Your task to perform on an android device: View the shopping cart on walmart. Search for bose soundlink mini on walmart, select the first entry, add it to the cart, then select checkout. Image 0: 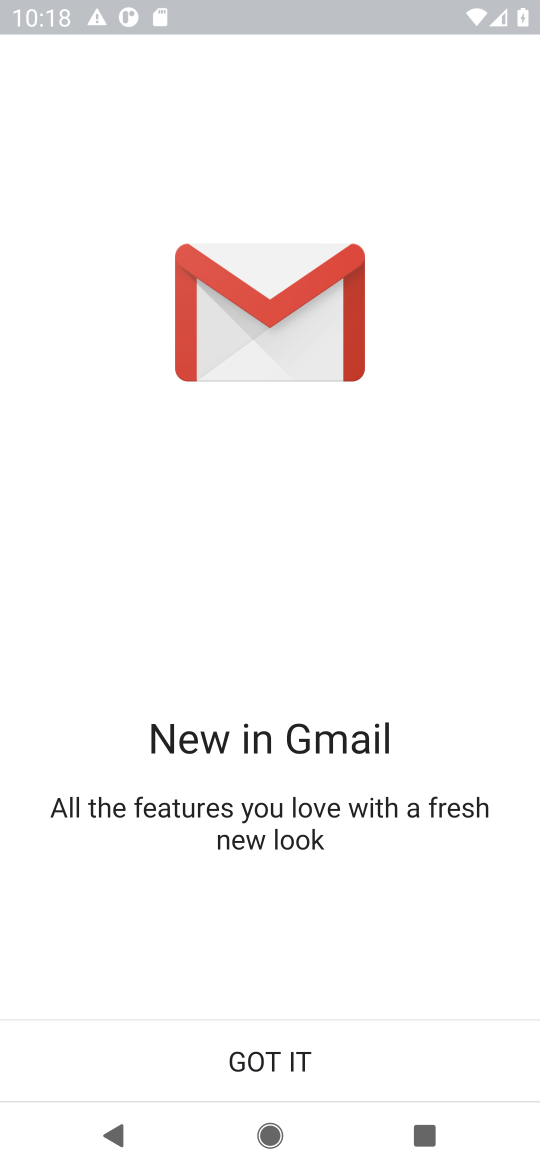
Step 0: press home button
Your task to perform on an android device: View the shopping cart on walmart. Search for bose soundlink mini on walmart, select the first entry, add it to the cart, then select checkout. Image 1: 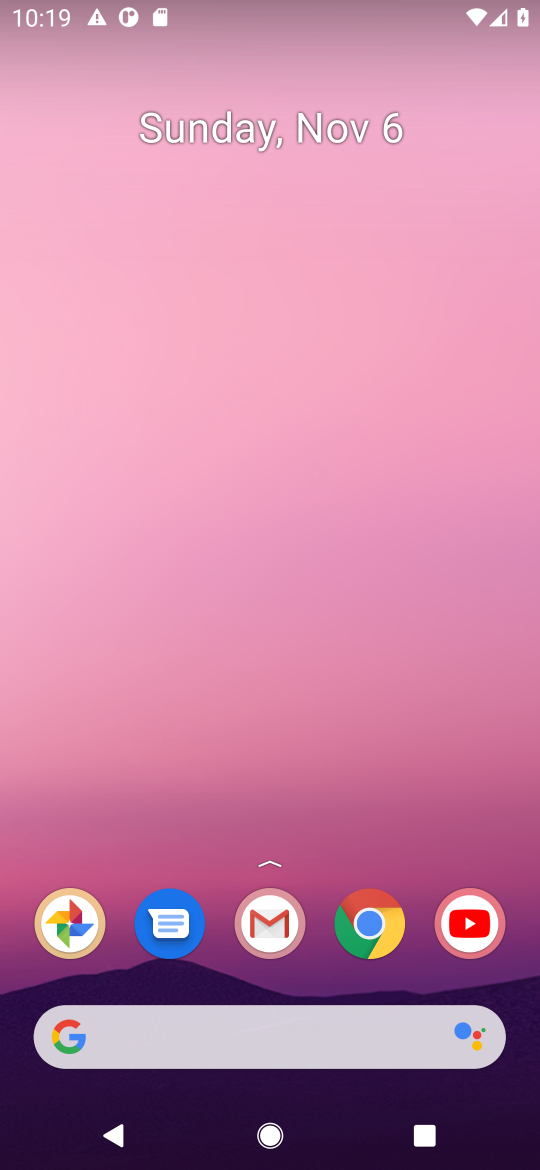
Step 1: click (368, 922)
Your task to perform on an android device: View the shopping cart on walmart. Search for bose soundlink mini on walmart, select the first entry, add it to the cart, then select checkout. Image 2: 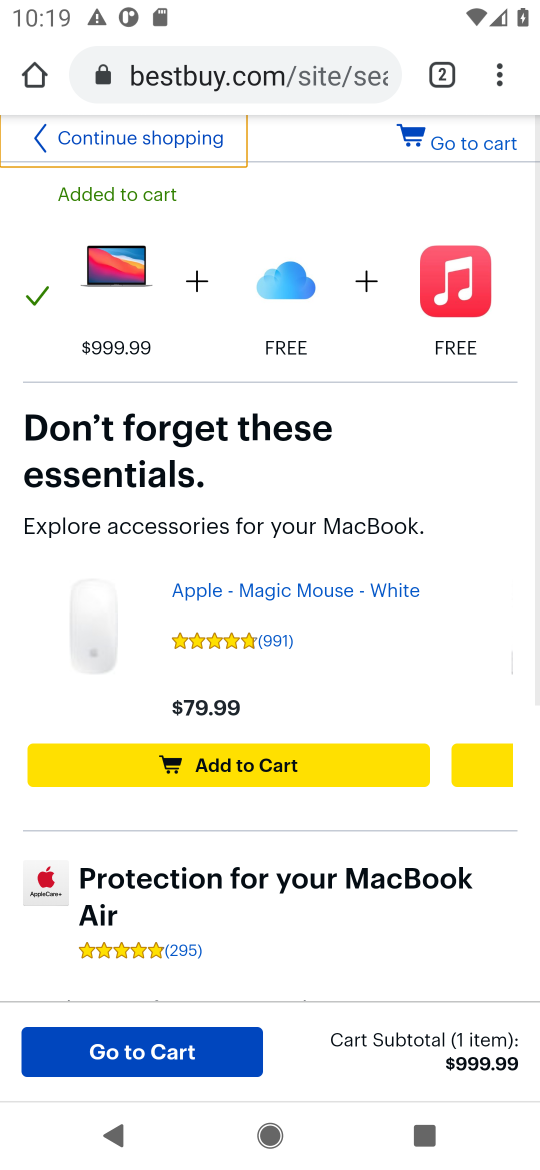
Step 2: click (243, 79)
Your task to perform on an android device: View the shopping cart on walmart. Search for bose soundlink mini on walmart, select the first entry, add it to the cart, then select checkout. Image 3: 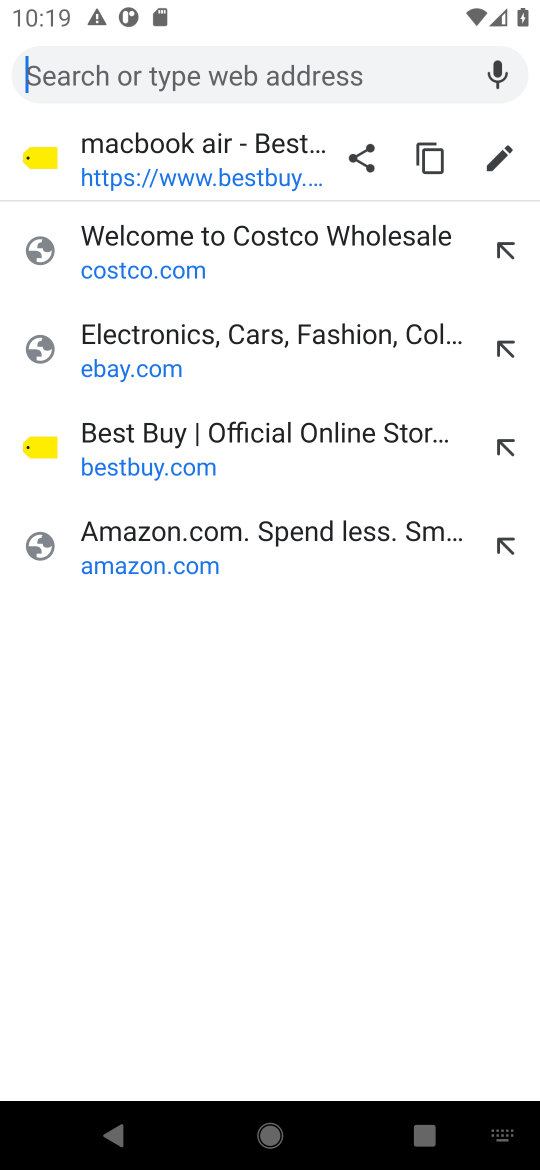
Step 3: type "walmart.com"
Your task to perform on an android device: View the shopping cart on walmart. Search for bose soundlink mini on walmart, select the first entry, add it to the cart, then select checkout. Image 4: 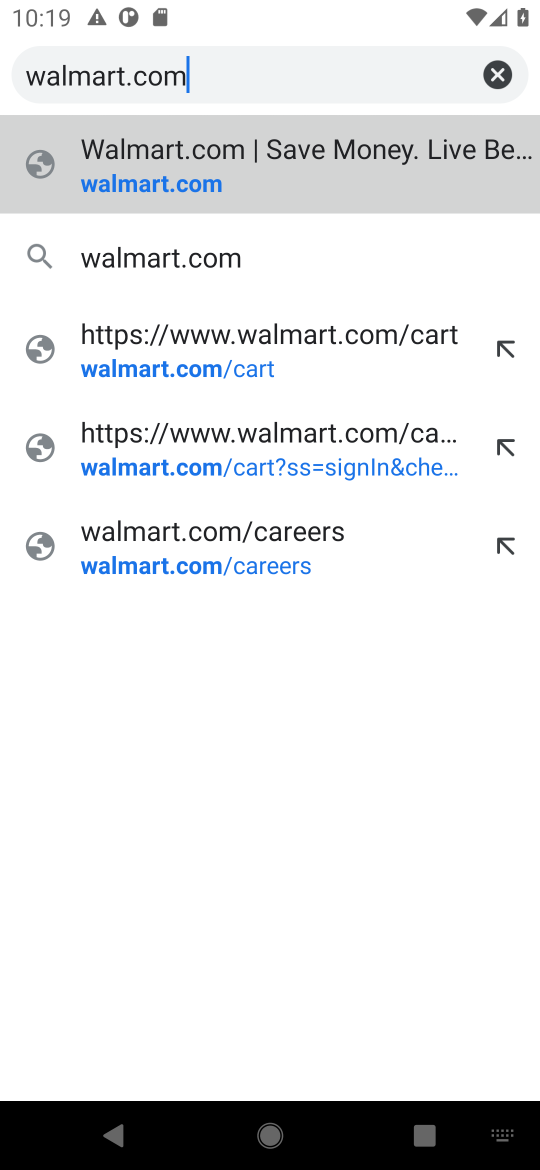
Step 4: click (165, 186)
Your task to perform on an android device: View the shopping cart on walmart. Search for bose soundlink mini on walmart, select the first entry, add it to the cart, then select checkout. Image 5: 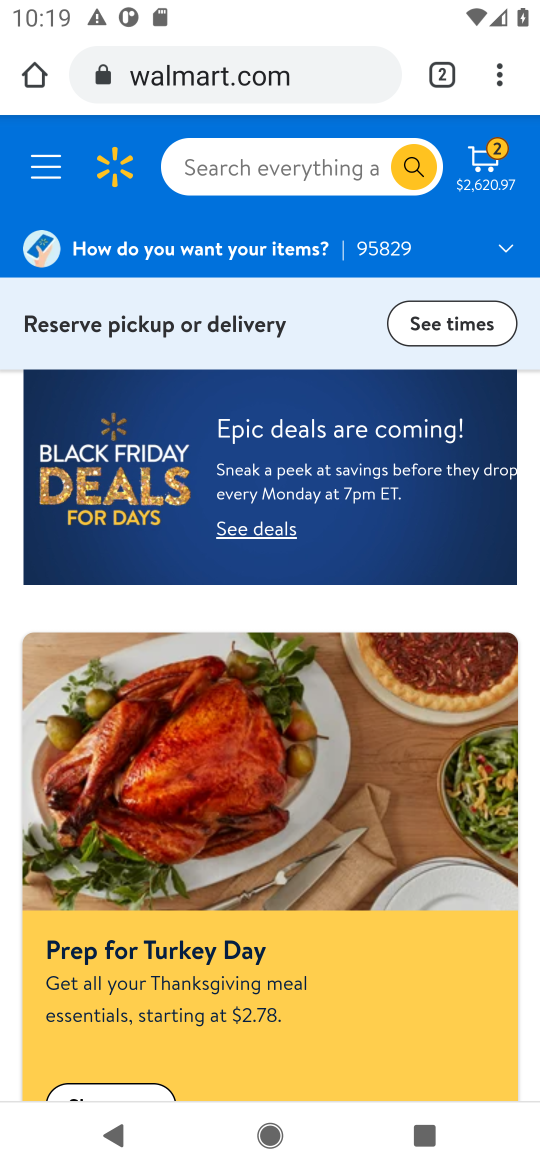
Step 5: click (497, 165)
Your task to perform on an android device: View the shopping cart on walmart. Search for bose soundlink mini on walmart, select the first entry, add it to the cart, then select checkout. Image 6: 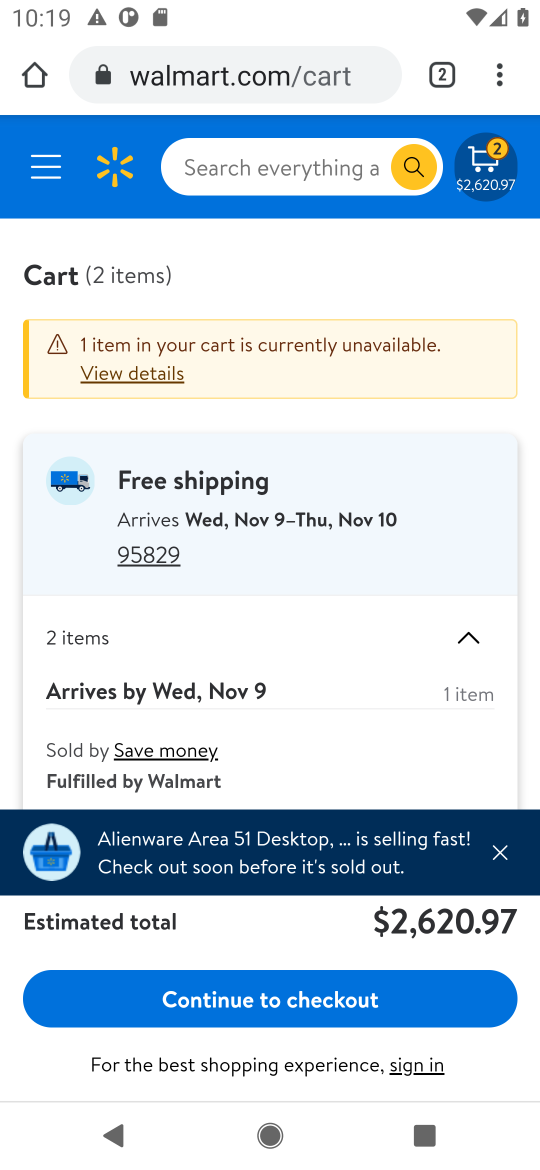
Step 6: click (231, 172)
Your task to perform on an android device: View the shopping cart on walmart. Search for bose soundlink mini on walmart, select the first entry, add it to the cart, then select checkout. Image 7: 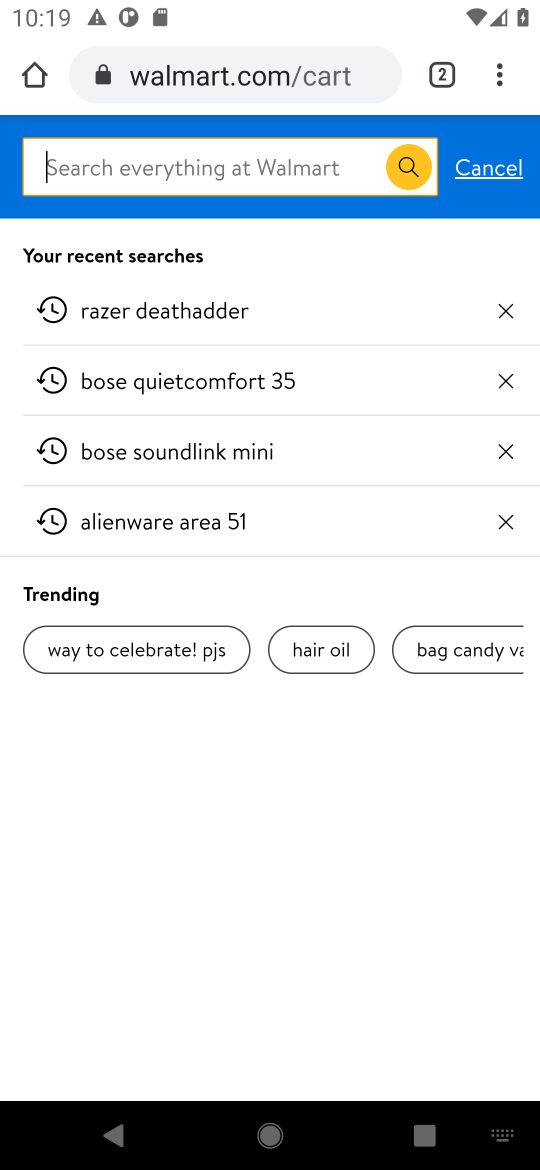
Step 7: type "bose soundlink mini"
Your task to perform on an android device: View the shopping cart on walmart. Search for bose soundlink mini on walmart, select the first entry, add it to the cart, then select checkout. Image 8: 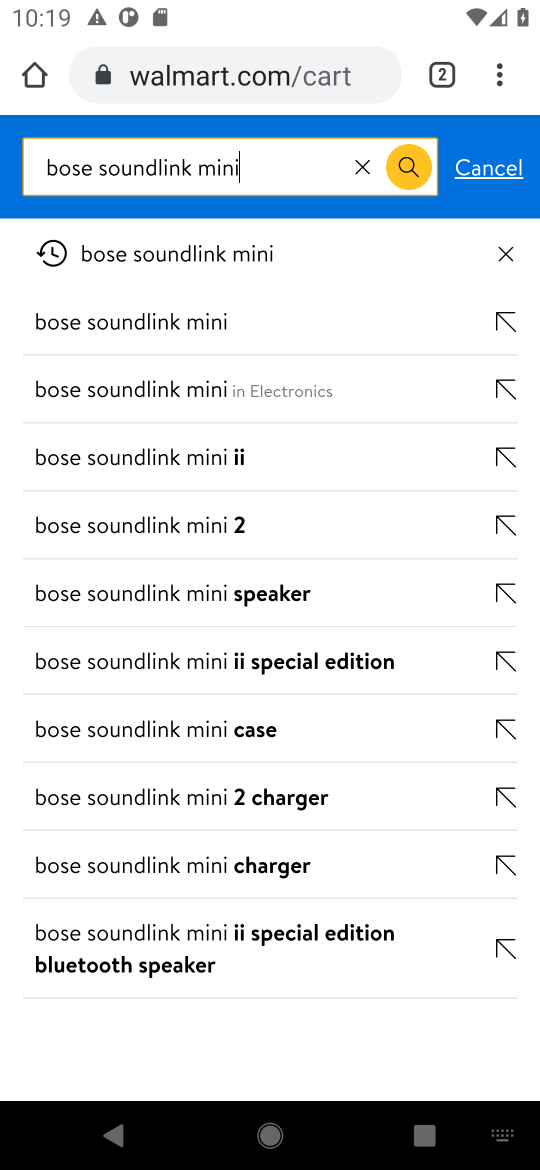
Step 8: click (143, 254)
Your task to perform on an android device: View the shopping cart on walmart. Search for bose soundlink mini on walmart, select the first entry, add it to the cart, then select checkout. Image 9: 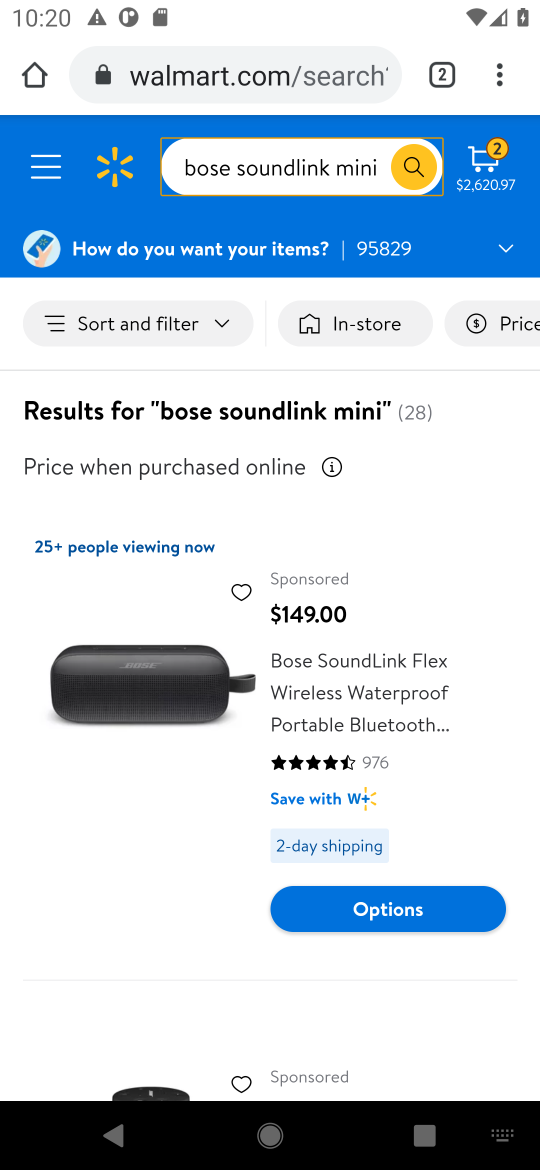
Step 9: drag from (454, 750) to (441, 543)
Your task to perform on an android device: View the shopping cart on walmart. Search for bose soundlink mini on walmart, select the first entry, add it to the cart, then select checkout. Image 10: 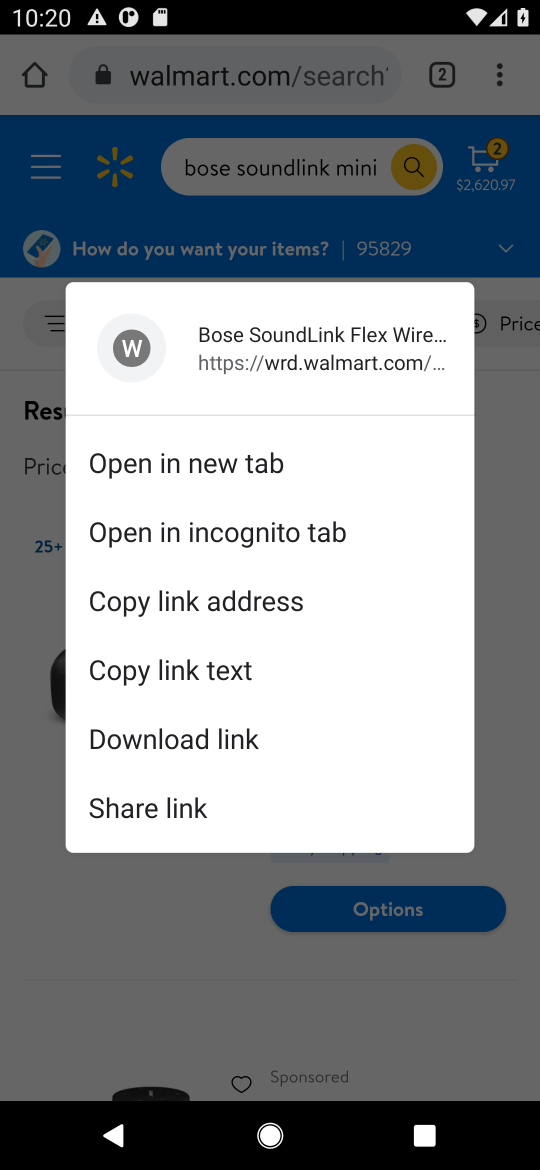
Step 10: drag from (396, 759) to (365, 440)
Your task to perform on an android device: View the shopping cart on walmart. Search for bose soundlink mini on walmart, select the first entry, add it to the cart, then select checkout. Image 11: 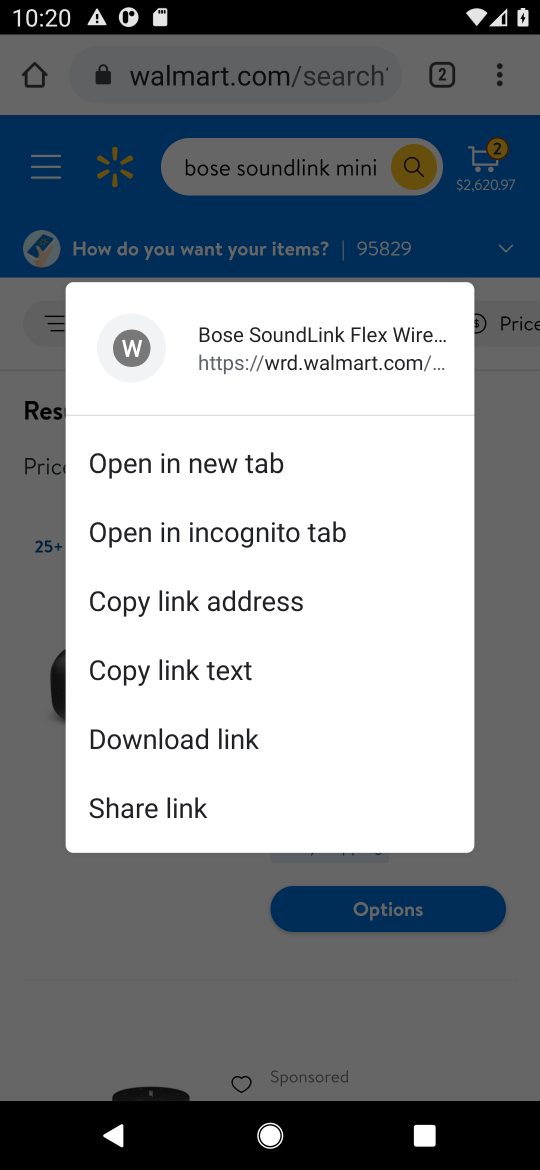
Step 11: click (517, 543)
Your task to perform on an android device: View the shopping cart on walmart. Search for bose soundlink mini on walmart, select the first entry, add it to the cart, then select checkout. Image 12: 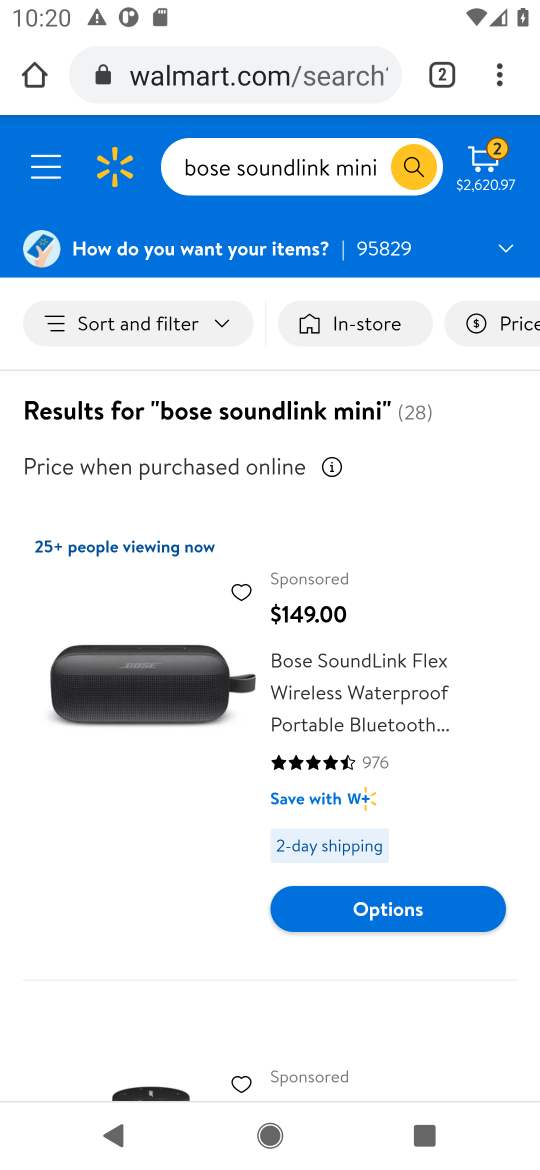
Step 12: task complete